Your task to perform on an android device: turn on javascript in the chrome app Image 0: 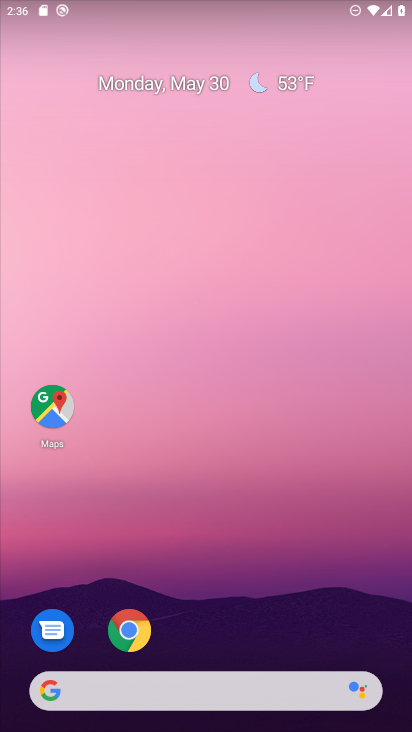
Step 0: drag from (219, 679) to (278, 181)
Your task to perform on an android device: turn on javascript in the chrome app Image 1: 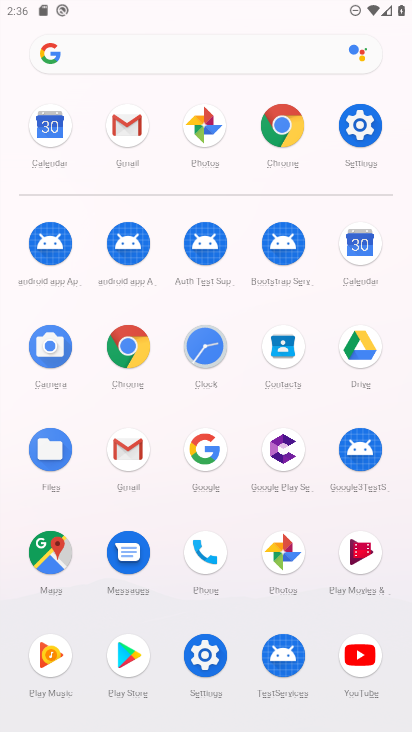
Step 1: click (280, 135)
Your task to perform on an android device: turn on javascript in the chrome app Image 2: 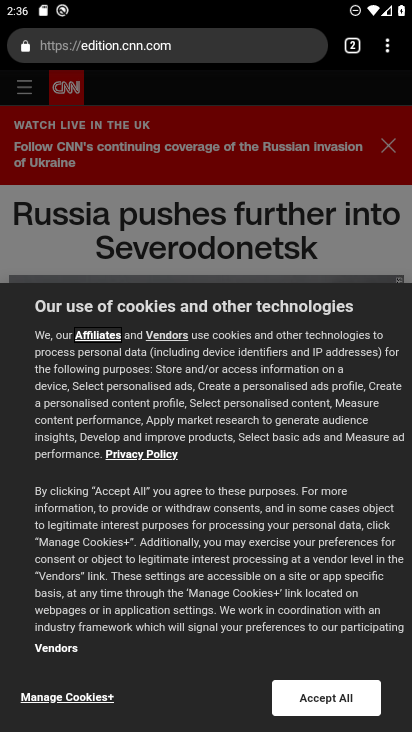
Step 2: drag from (385, 36) to (230, 507)
Your task to perform on an android device: turn on javascript in the chrome app Image 3: 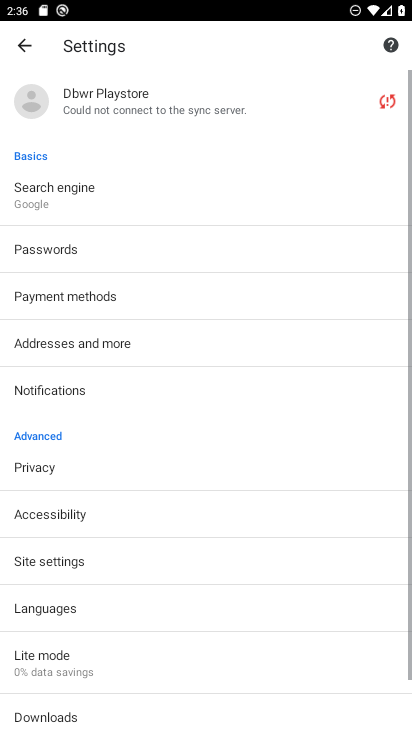
Step 3: click (95, 568)
Your task to perform on an android device: turn on javascript in the chrome app Image 4: 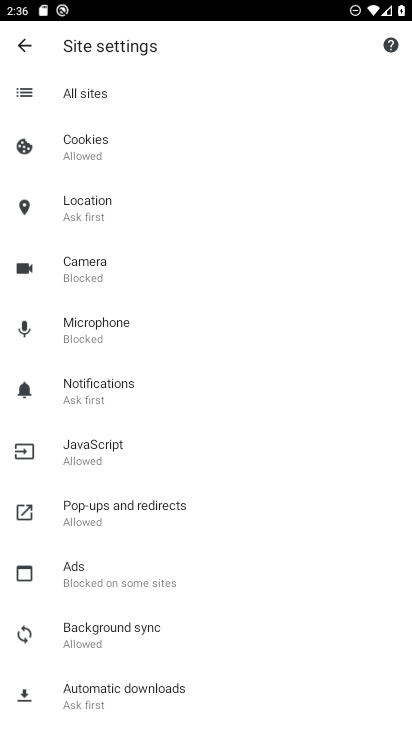
Step 4: click (119, 451)
Your task to perform on an android device: turn on javascript in the chrome app Image 5: 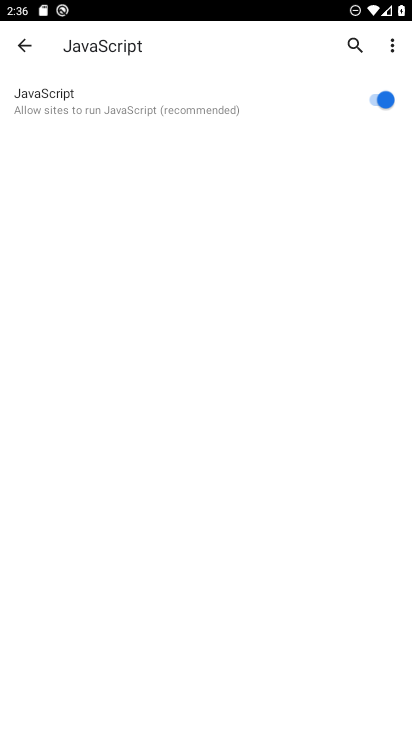
Step 5: task complete